Your task to perform on an android device: Search for sushi restaurants on Maps Image 0: 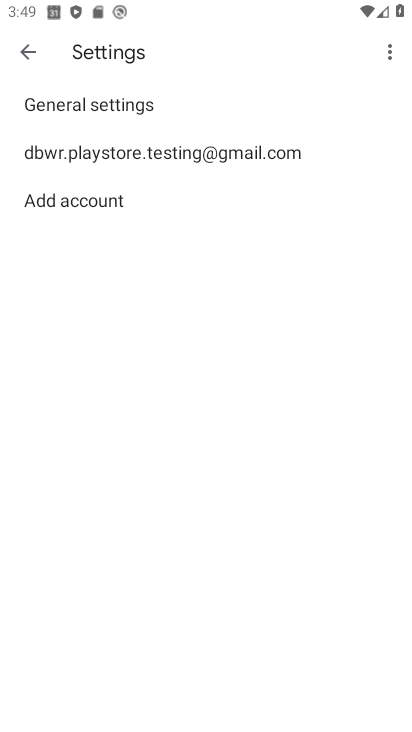
Step 0: click (30, 52)
Your task to perform on an android device: Search for sushi restaurants on Maps Image 1: 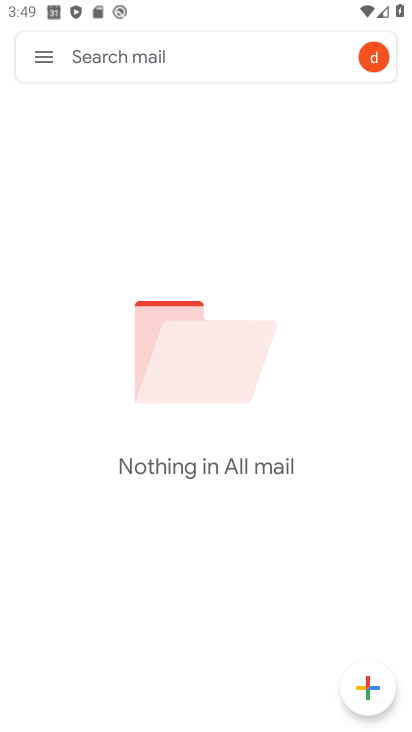
Step 1: press home button
Your task to perform on an android device: Search for sushi restaurants on Maps Image 2: 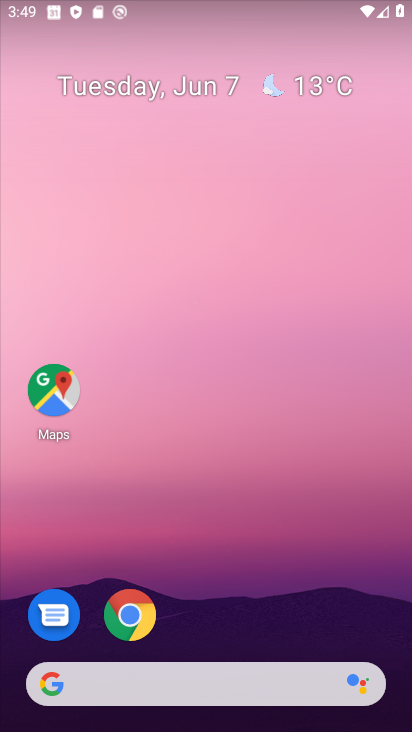
Step 2: drag from (199, 697) to (183, 109)
Your task to perform on an android device: Search for sushi restaurants on Maps Image 3: 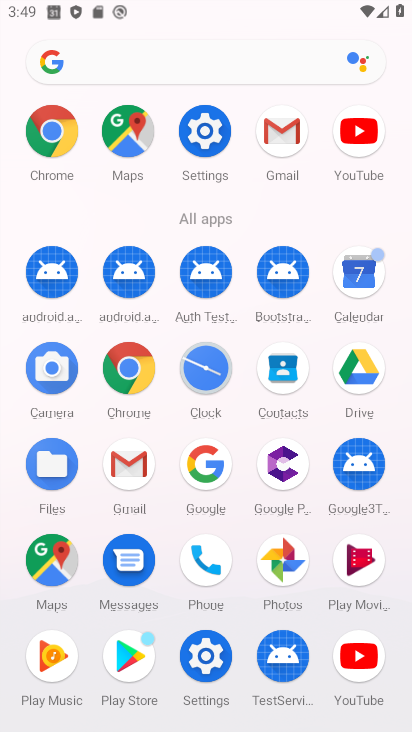
Step 3: click (59, 567)
Your task to perform on an android device: Search for sushi restaurants on Maps Image 4: 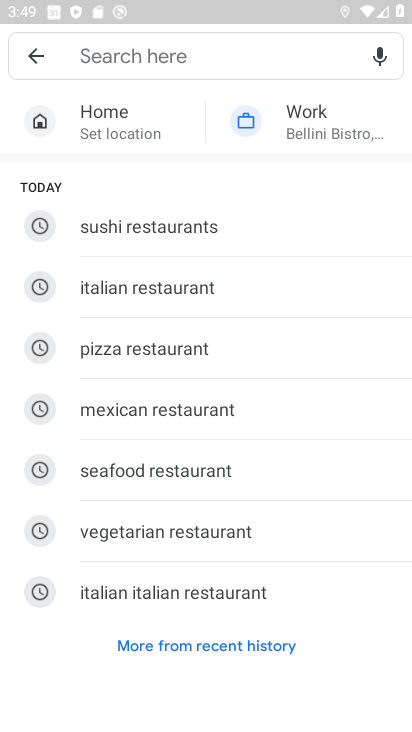
Step 4: click (120, 236)
Your task to perform on an android device: Search for sushi restaurants on Maps Image 5: 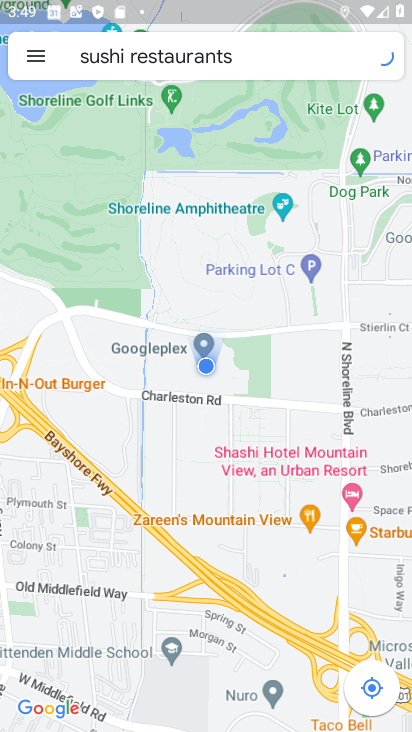
Step 5: task complete